Your task to perform on an android device: Go to accessibility settings Image 0: 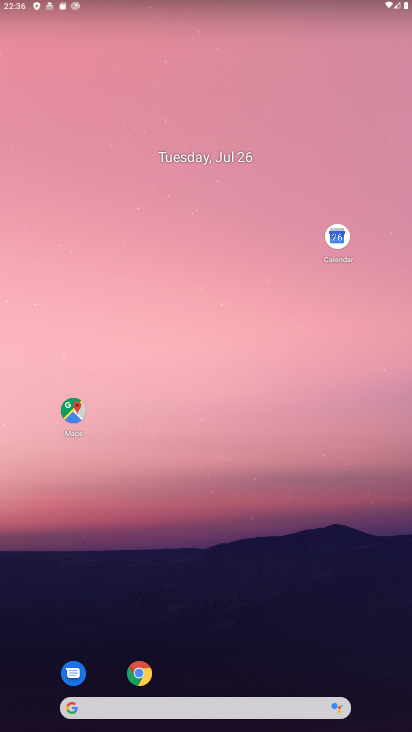
Step 0: drag from (213, 356) to (181, 73)
Your task to perform on an android device: Go to accessibility settings Image 1: 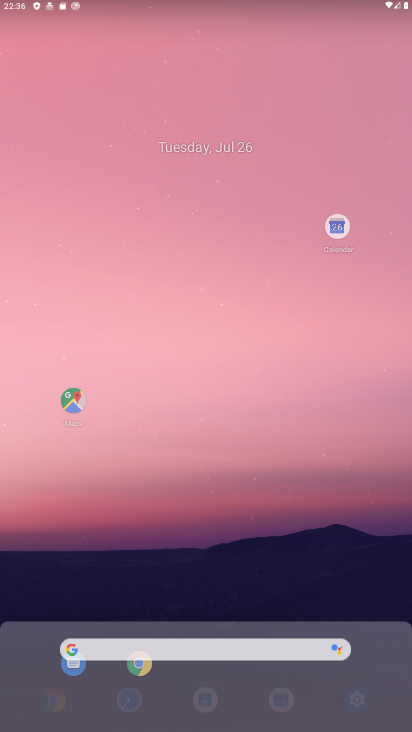
Step 1: drag from (164, 442) to (86, 1)
Your task to perform on an android device: Go to accessibility settings Image 2: 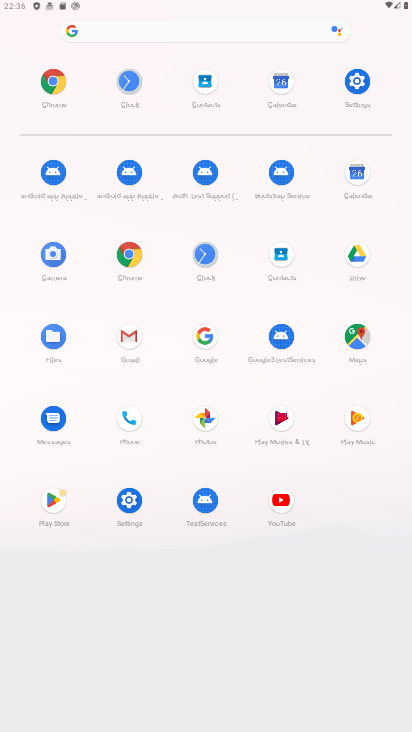
Step 2: click (352, 100)
Your task to perform on an android device: Go to accessibility settings Image 3: 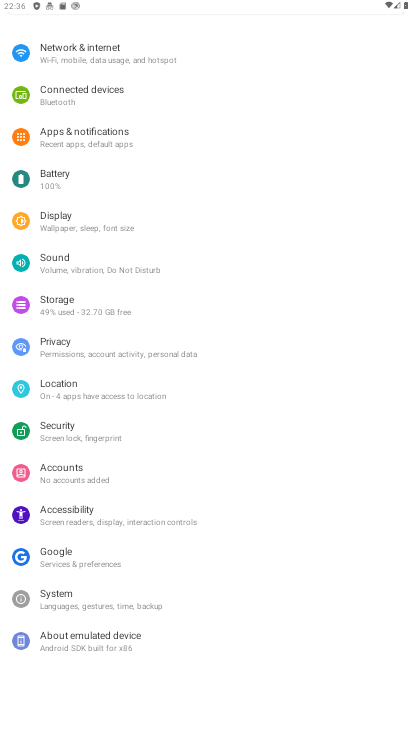
Step 3: click (349, 63)
Your task to perform on an android device: Go to accessibility settings Image 4: 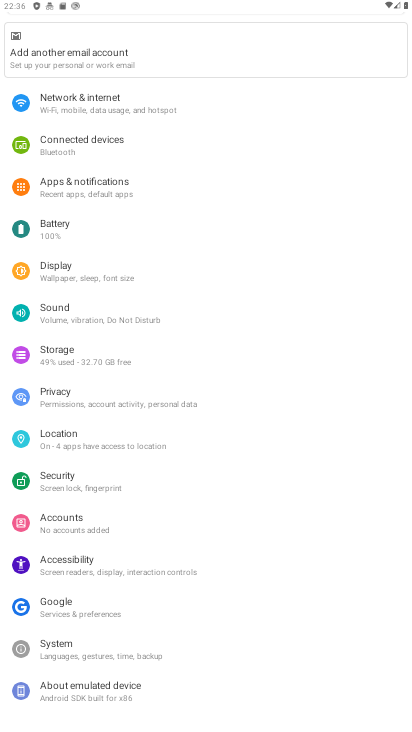
Step 4: click (54, 235)
Your task to perform on an android device: Go to accessibility settings Image 5: 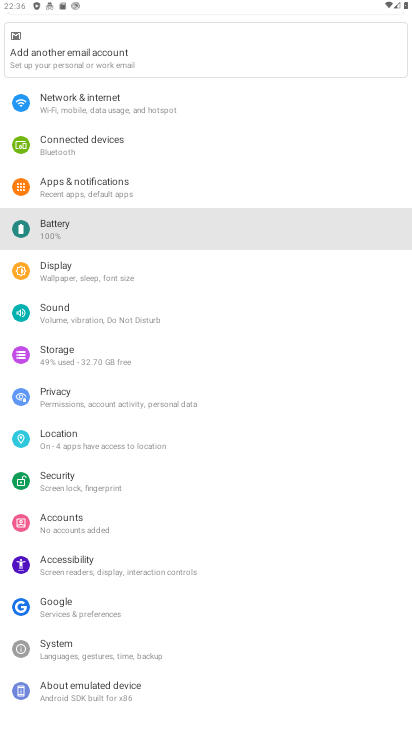
Step 5: click (64, 571)
Your task to perform on an android device: Go to accessibility settings Image 6: 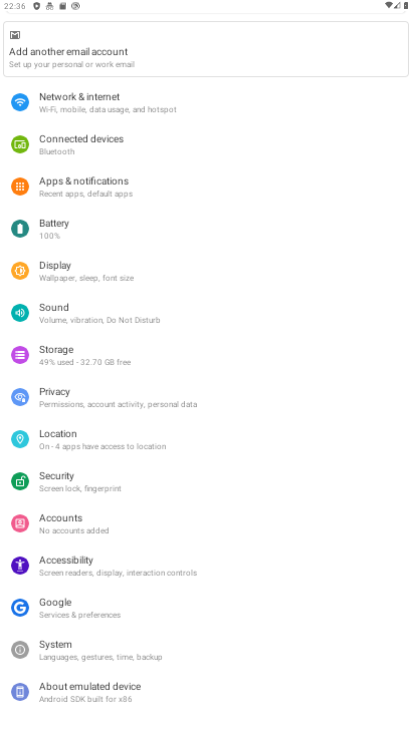
Step 6: click (64, 571)
Your task to perform on an android device: Go to accessibility settings Image 7: 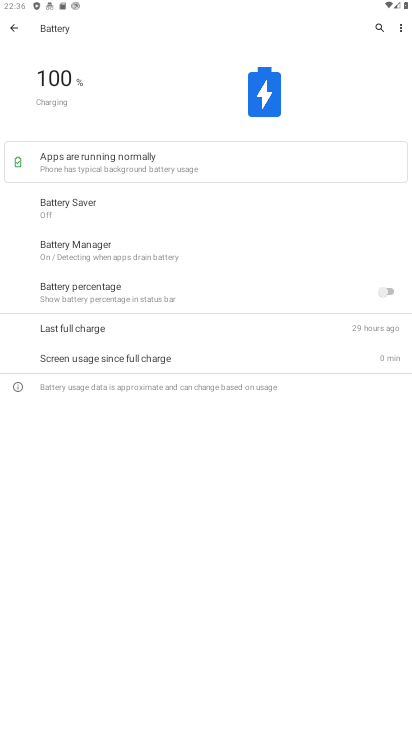
Step 7: click (6, 32)
Your task to perform on an android device: Go to accessibility settings Image 8: 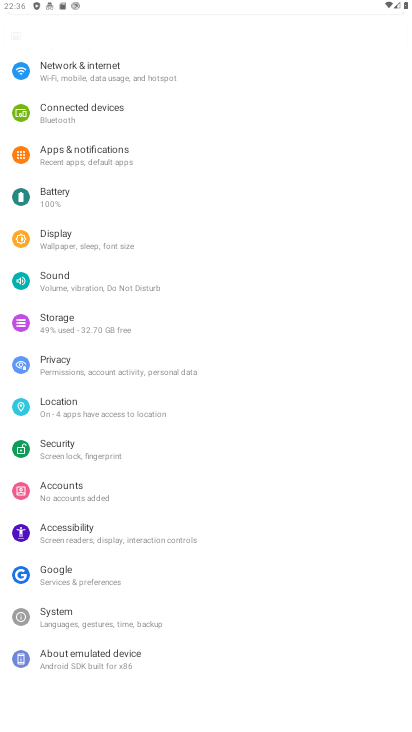
Step 8: click (7, 33)
Your task to perform on an android device: Go to accessibility settings Image 9: 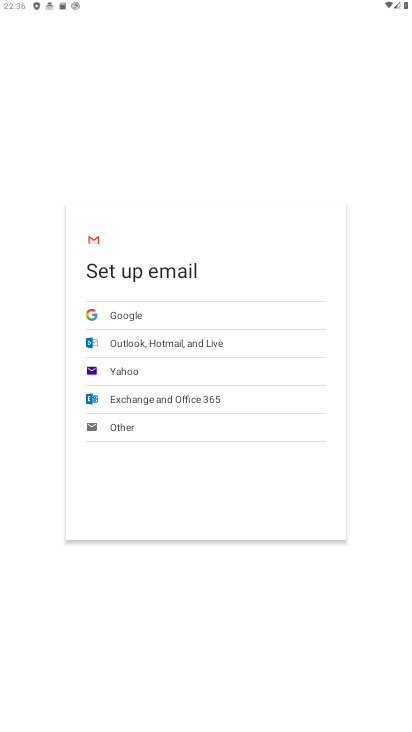
Step 9: click (64, 570)
Your task to perform on an android device: Go to accessibility settings Image 10: 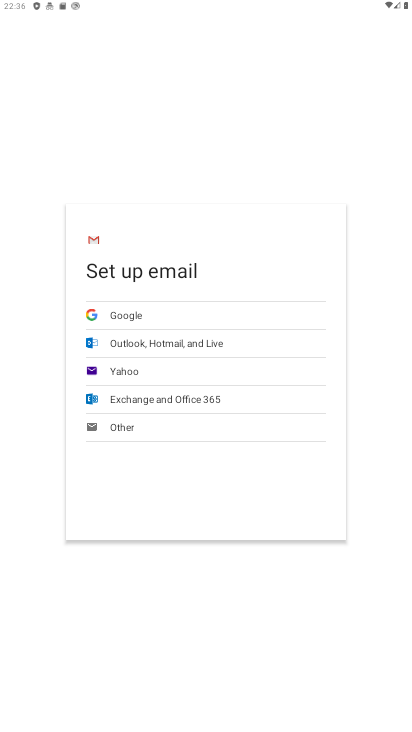
Step 10: click (72, 89)
Your task to perform on an android device: Go to accessibility settings Image 11: 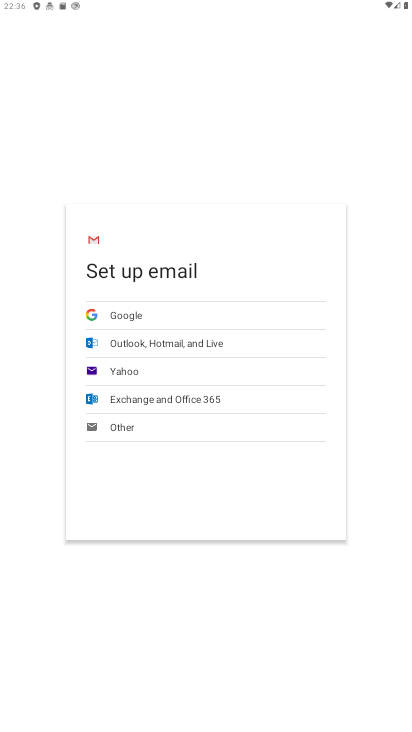
Step 11: click (51, 126)
Your task to perform on an android device: Go to accessibility settings Image 12: 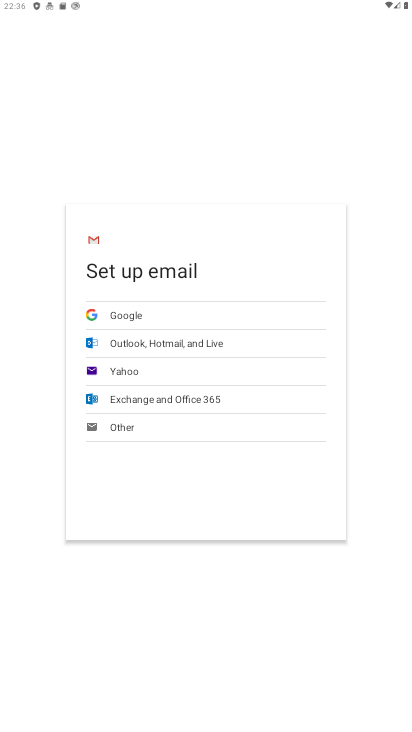
Step 12: click (59, 100)
Your task to perform on an android device: Go to accessibility settings Image 13: 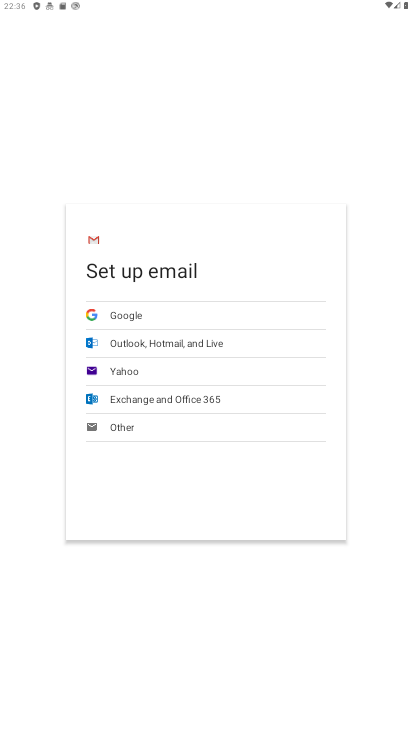
Step 13: click (61, 104)
Your task to perform on an android device: Go to accessibility settings Image 14: 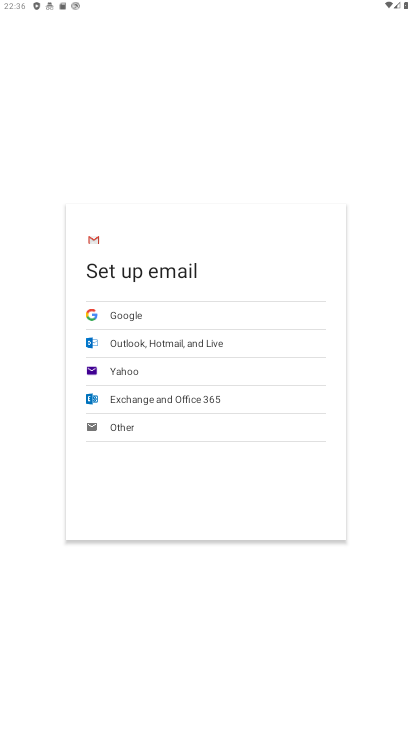
Step 14: click (61, 104)
Your task to perform on an android device: Go to accessibility settings Image 15: 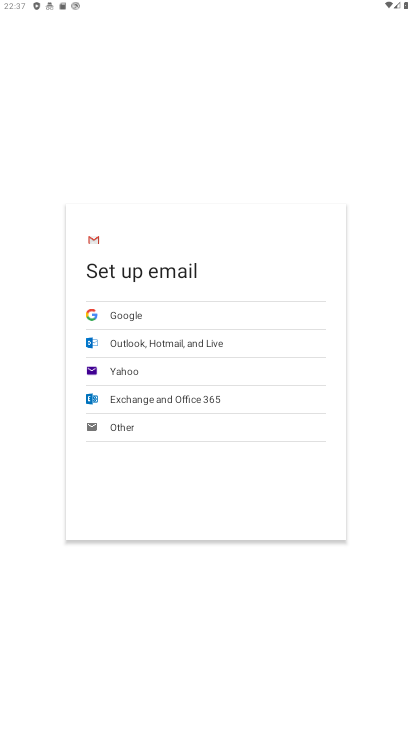
Step 15: click (64, 111)
Your task to perform on an android device: Go to accessibility settings Image 16: 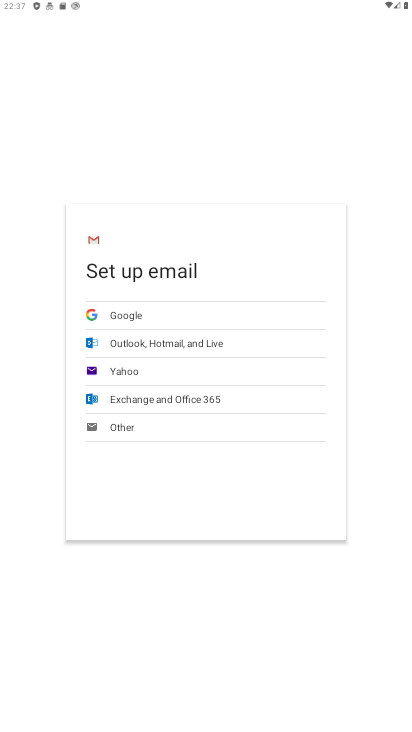
Step 16: click (64, 111)
Your task to perform on an android device: Go to accessibility settings Image 17: 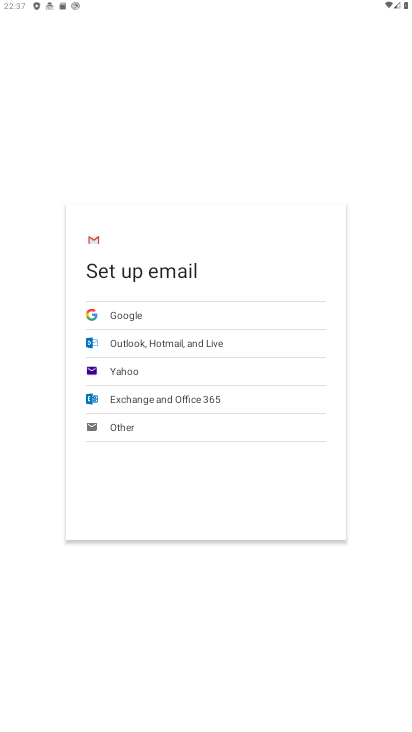
Step 17: click (71, 112)
Your task to perform on an android device: Go to accessibility settings Image 18: 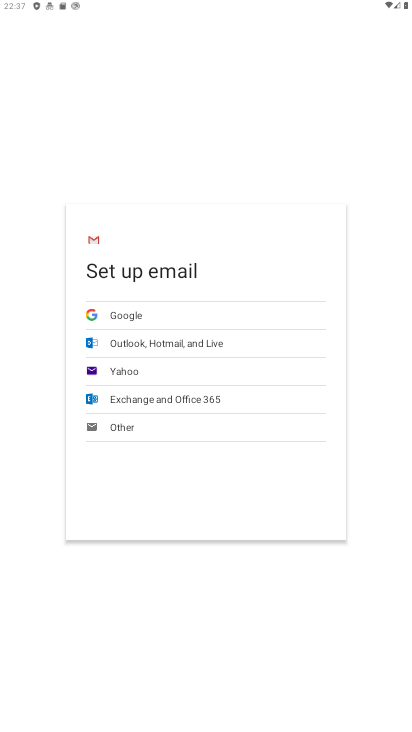
Step 18: click (107, 126)
Your task to perform on an android device: Go to accessibility settings Image 19: 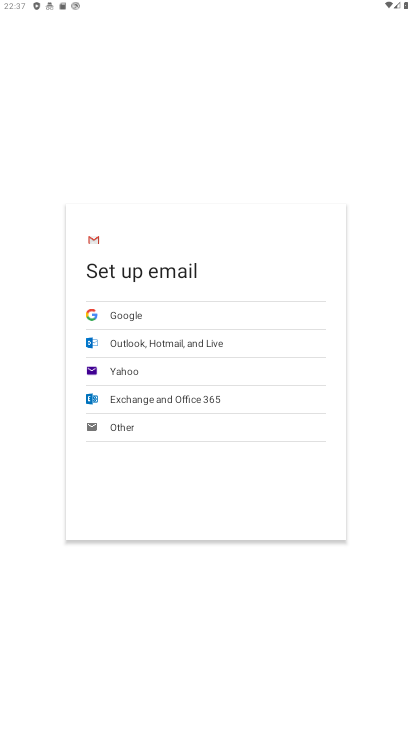
Step 19: click (64, 157)
Your task to perform on an android device: Go to accessibility settings Image 20: 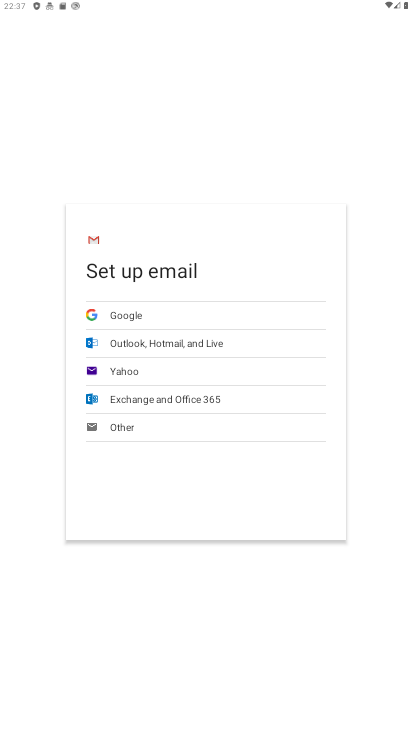
Step 20: click (80, 147)
Your task to perform on an android device: Go to accessibility settings Image 21: 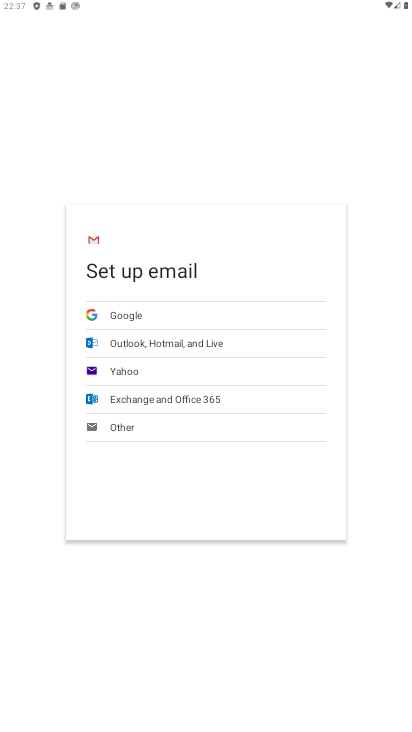
Step 21: click (94, 156)
Your task to perform on an android device: Go to accessibility settings Image 22: 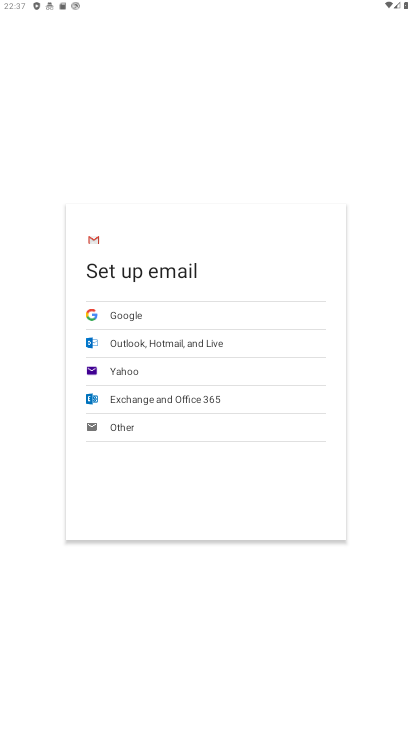
Step 22: click (108, 148)
Your task to perform on an android device: Go to accessibility settings Image 23: 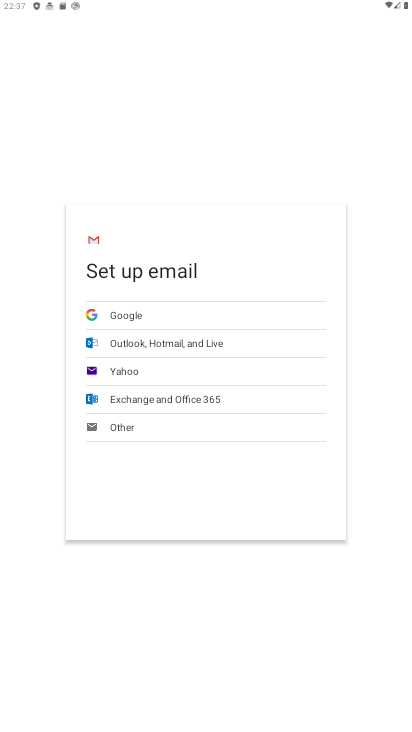
Step 23: click (114, 140)
Your task to perform on an android device: Go to accessibility settings Image 24: 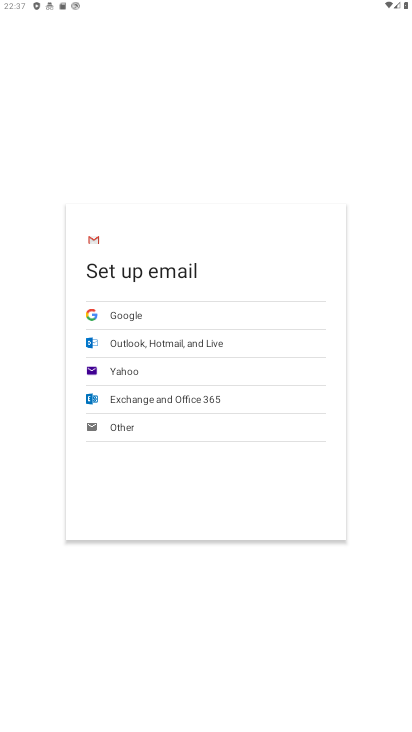
Step 24: click (121, 148)
Your task to perform on an android device: Go to accessibility settings Image 25: 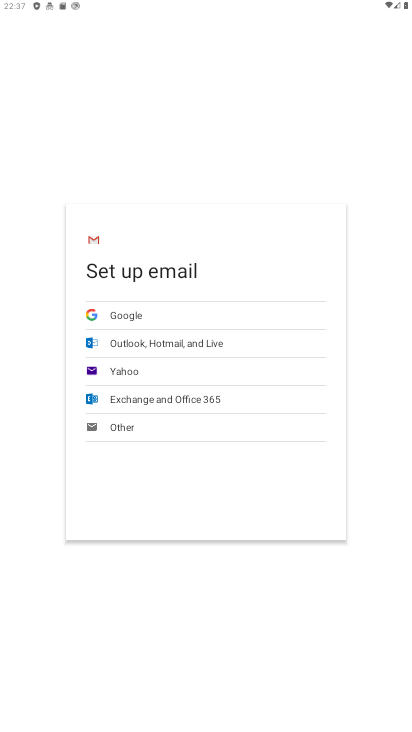
Step 25: click (123, 154)
Your task to perform on an android device: Go to accessibility settings Image 26: 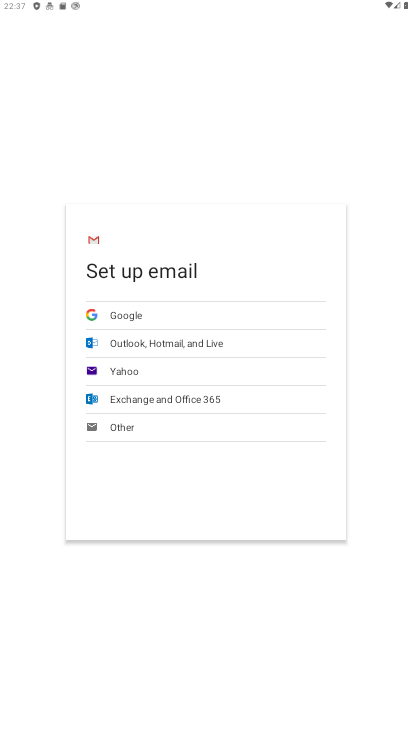
Step 26: click (93, 151)
Your task to perform on an android device: Go to accessibility settings Image 27: 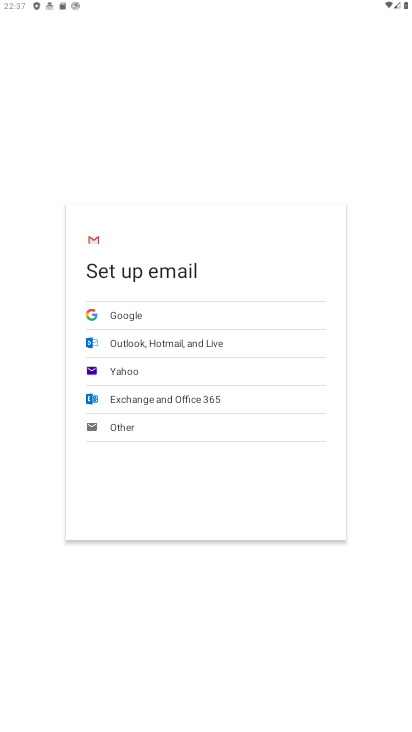
Step 27: click (94, 152)
Your task to perform on an android device: Go to accessibility settings Image 28: 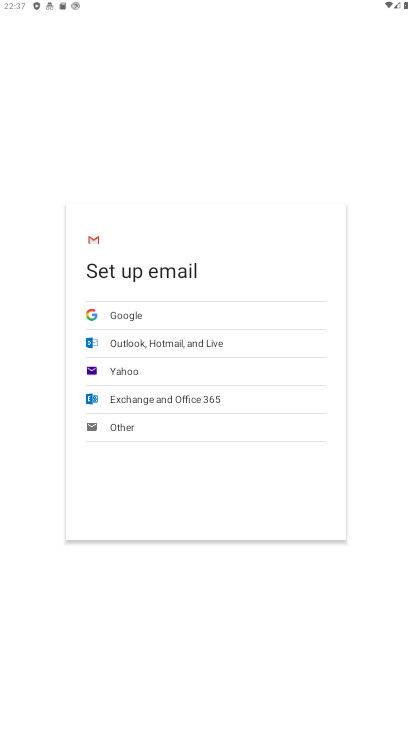
Step 28: press back button
Your task to perform on an android device: Go to accessibility settings Image 29: 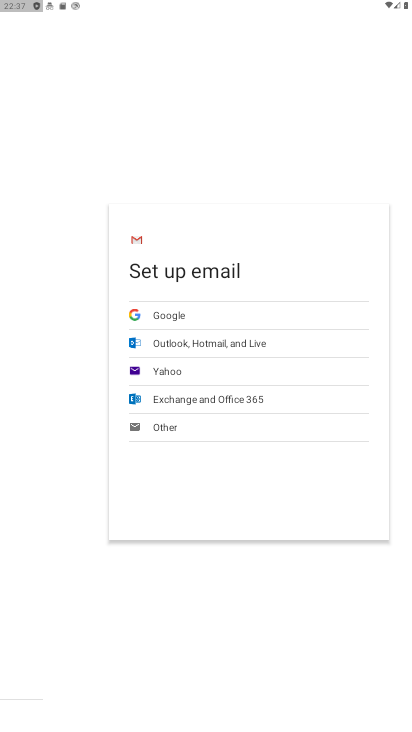
Step 29: press back button
Your task to perform on an android device: Go to accessibility settings Image 30: 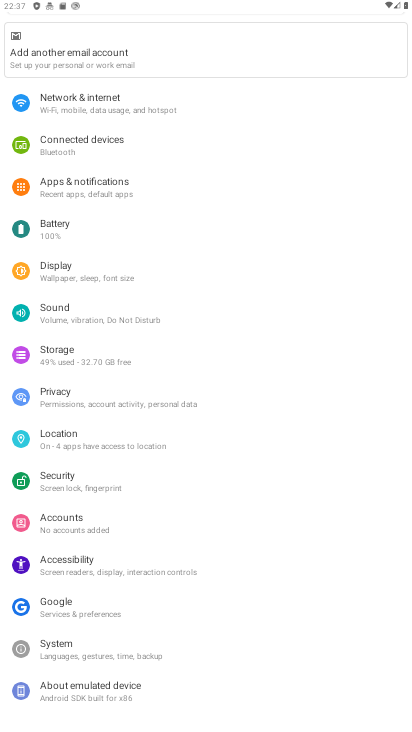
Step 30: click (75, 559)
Your task to perform on an android device: Go to accessibility settings Image 31: 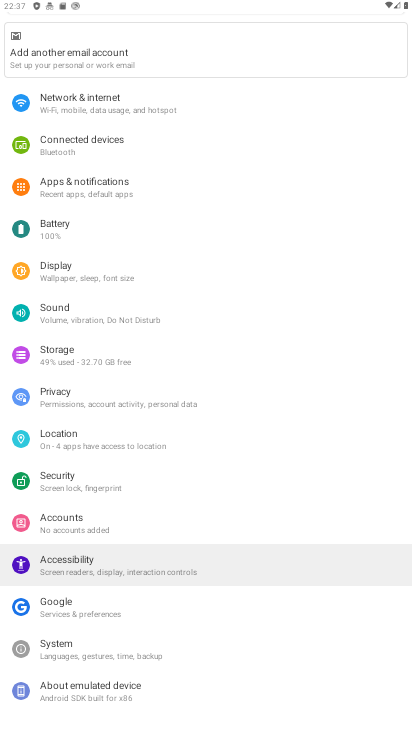
Step 31: click (66, 556)
Your task to perform on an android device: Go to accessibility settings Image 32: 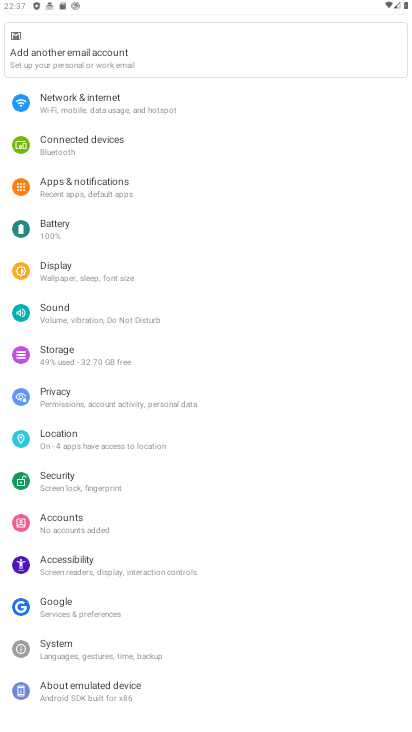
Step 32: click (66, 556)
Your task to perform on an android device: Go to accessibility settings Image 33: 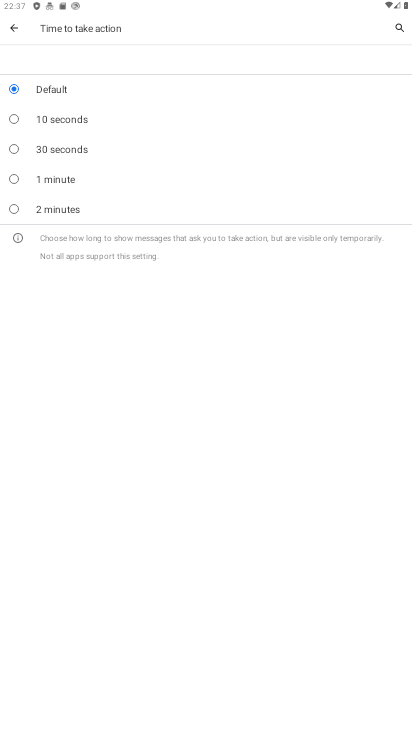
Step 33: click (20, 29)
Your task to perform on an android device: Go to accessibility settings Image 34: 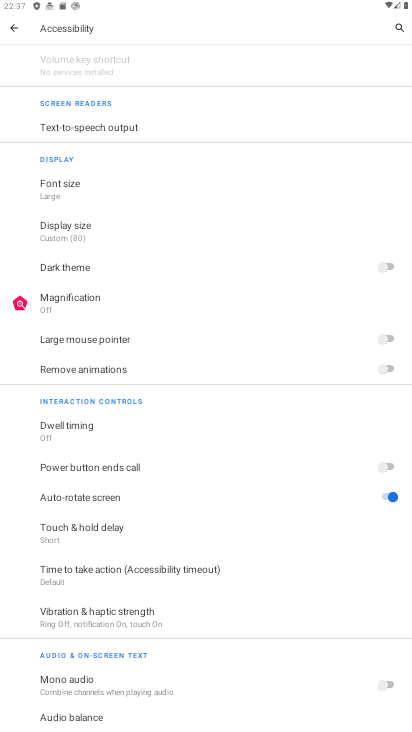
Step 34: drag from (111, 446) to (40, 1)
Your task to perform on an android device: Go to accessibility settings Image 35: 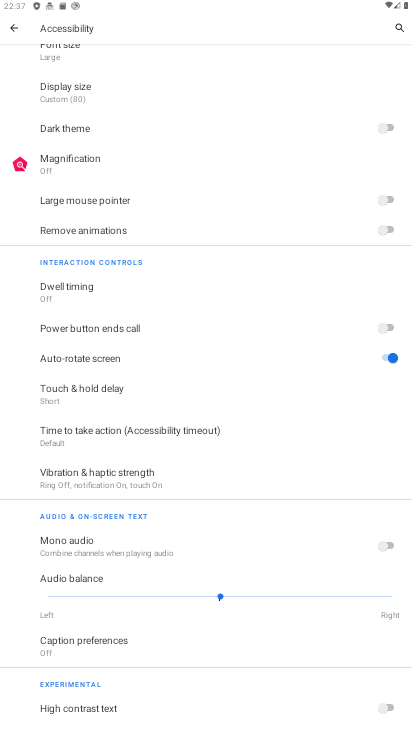
Step 35: click (177, 182)
Your task to perform on an android device: Go to accessibility settings Image 36: 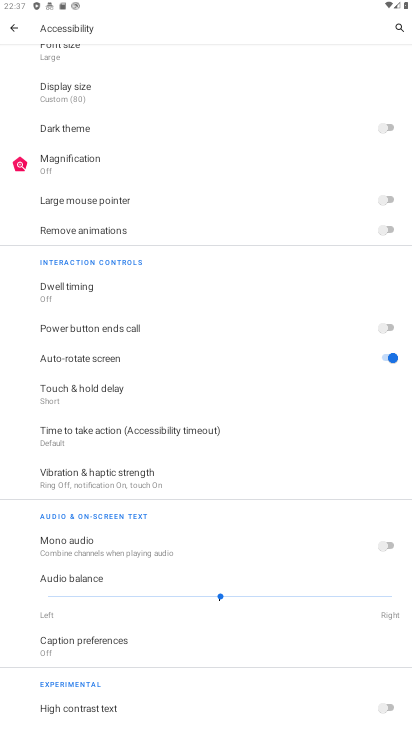
Step 36: task complete